Your task to perform on an android device: Open the calendar and show me this week's events? Image 0: 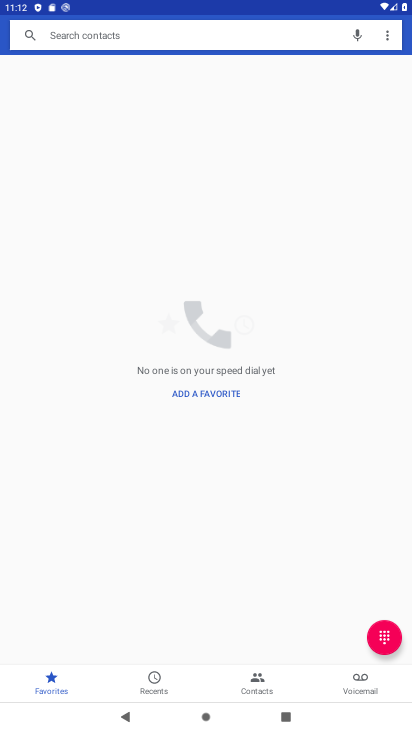
Step 0: press home button
Your task to perform on an android device: Open the calendar and show me this week's events? Image 1: 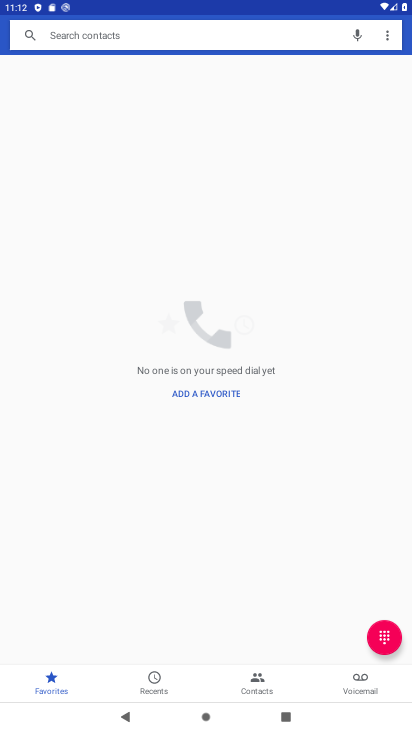
Step 1: press home button
Your task to perform on an android device: Open the calendar and show me this week's events? Image 2: 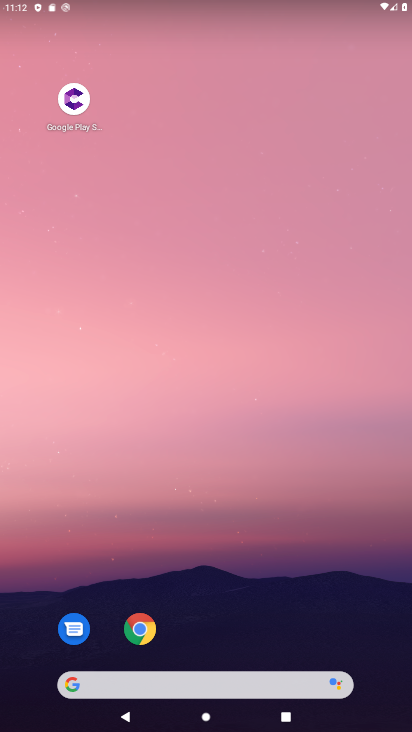
Step 2: click (143, 630)
Your task to perform on an android device: Open the calendar and show me this week's events? Image 3: 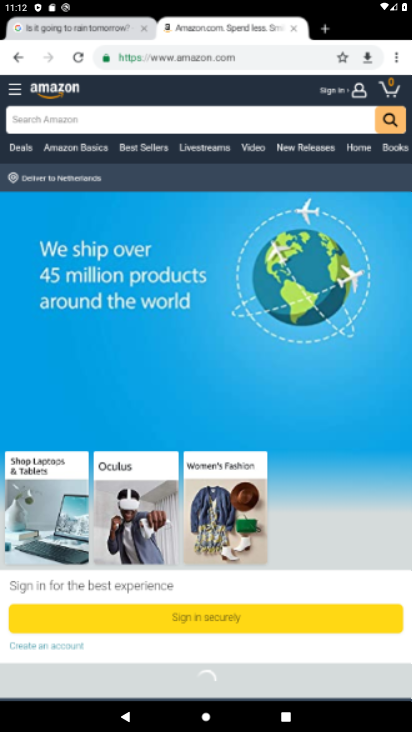
Step 3: press home button
Your task to perform on an android device: Open the calendar and show me this week's events? Image 4: 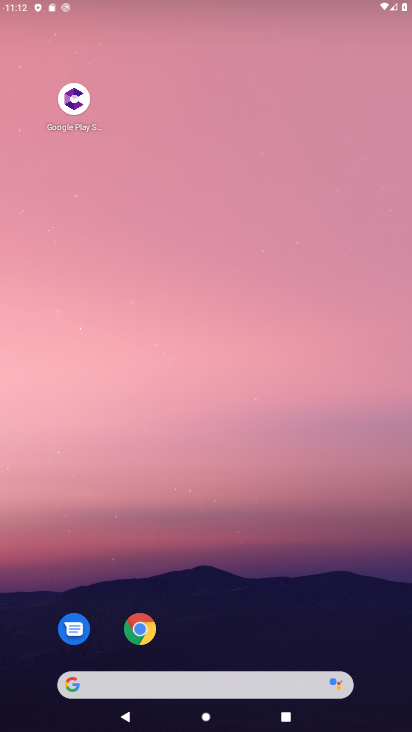
Step 4: drag from (273, 635) to (330, 0)
Your task to perform on an android device: Open the calendar and show me this week's events? Image 5: 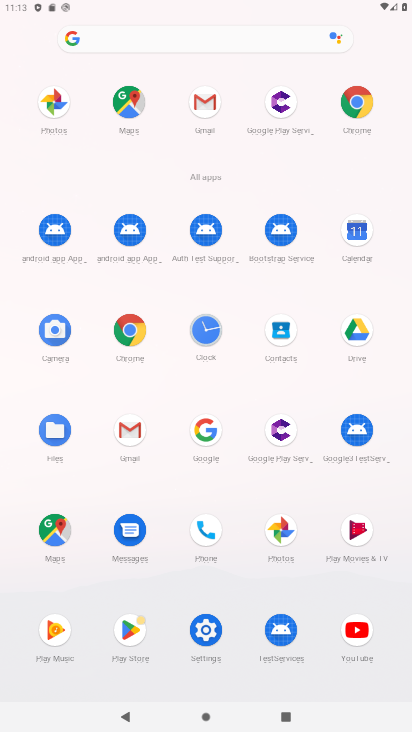
Step 5: click (370, 238)
Your task to perform on an android device: Open the calendar and show me this week's events? Image 6: 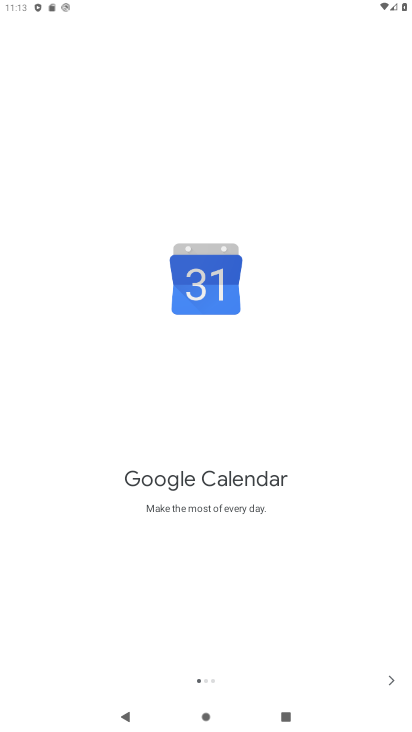
Step 6: click (394, 682)
Your task to perform on an android device: Open the calendar and show me this week's events? Image 7: 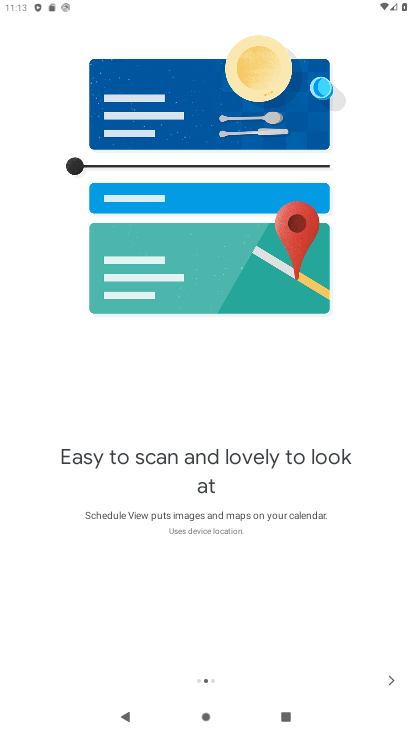
Step 7: click (389, 676)
Your task to perform on an android device: Open the calendar and show me this week's events? Image 8: 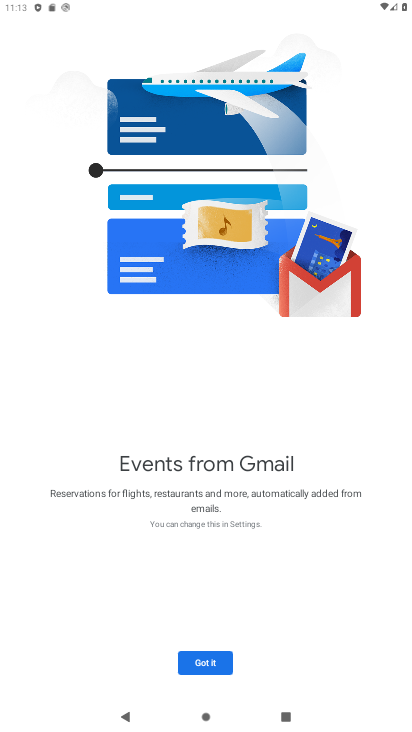
Step 8: click (193, 658)
Your task to perform on an android device: Open the calendar and show me this week's events? Image 9: 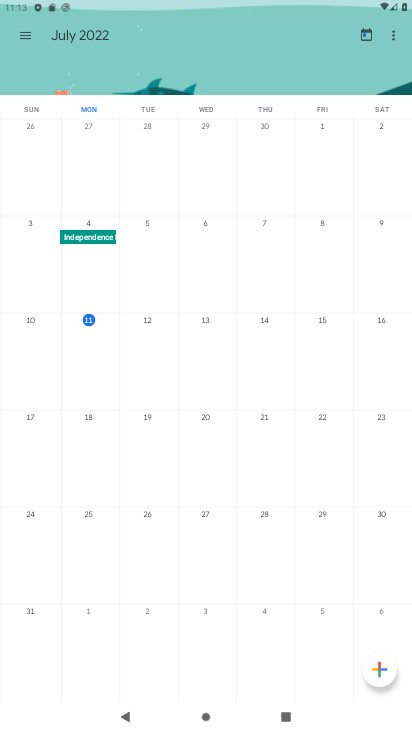
Step 9: click (30, 26)
Your task to perform on an android device: Open the calendar and show me this week's events? Image 10: 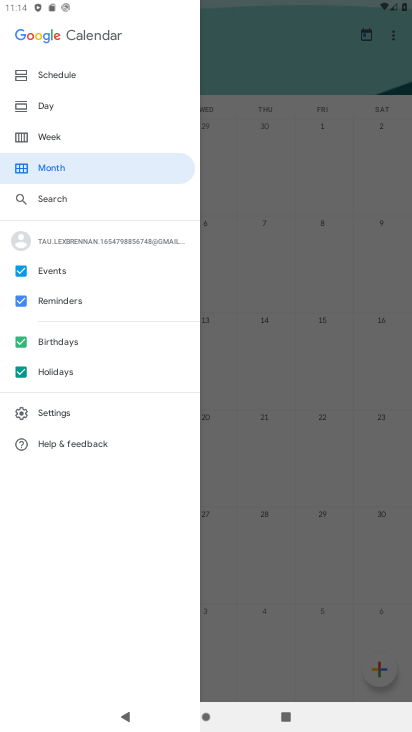
Step 10: click (66, 78)
Your task to perform on an android device: Open the calendar and show me this week's events? Image 11: 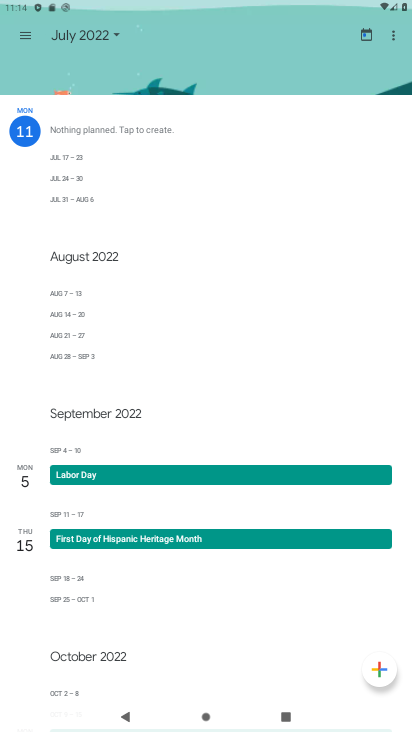
Step 11: task complete